Your task to perform on an android device: snooze an email in the gmail app Image 0: 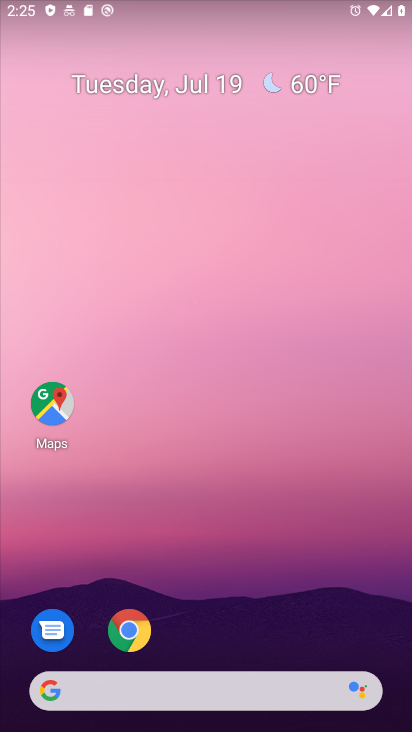
Step 0: click (211, 176)
Your task to perform on an android device: snooze an email in the gmail app Image 1: 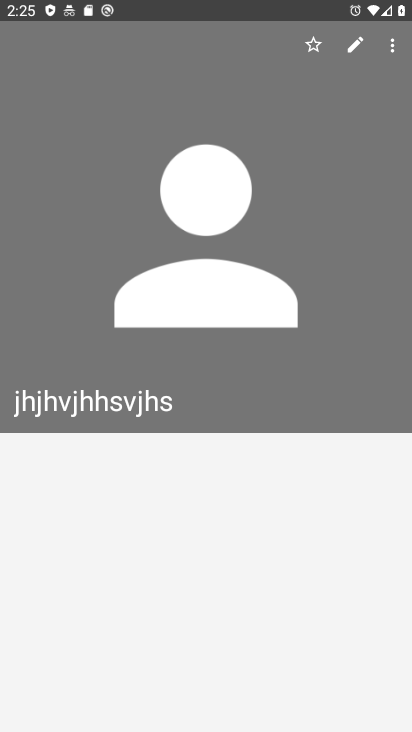
Step 1: drag from (232, 567) to (191, 211)
Your task to perform on an android device: snooze an email in the gmail app Image 2: 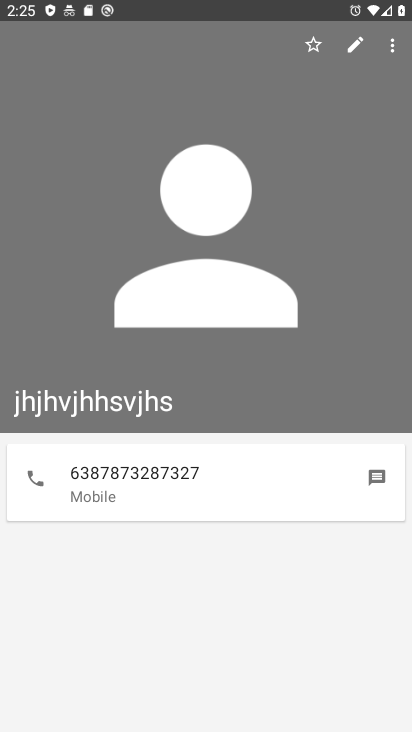
Step 2: press back button
Your task to perform on an android device: snooze an email in the gmail app Image 3: 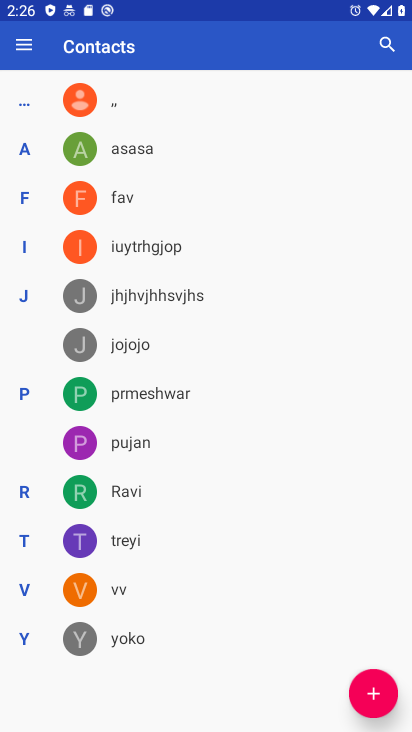
Step 3: press back button
Your task to perform on an android device: snooze an email in the gmail app Image 4: 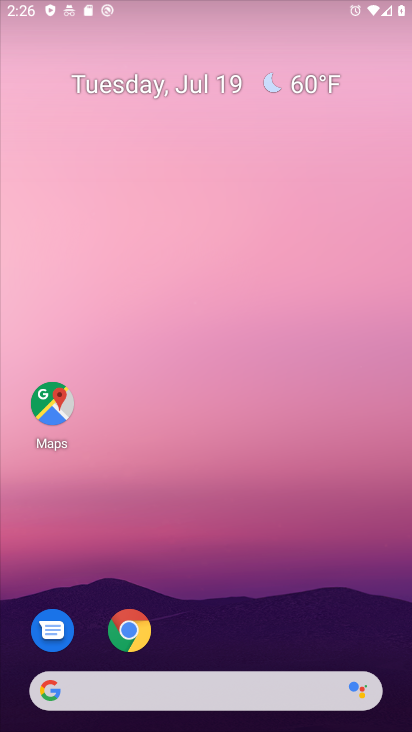
Step 4: drag from (296, 578) to (267, 260)
Your task to perform on an android device: snooze an email in the gmail app Image 5: 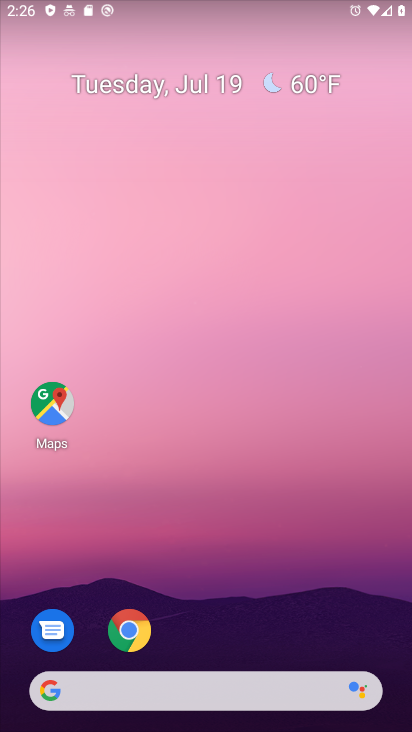
Step 5: drag from (269, 535) to (256, 223)
Your task to perform on an android device: snooze an email in the gmail app Image 6: 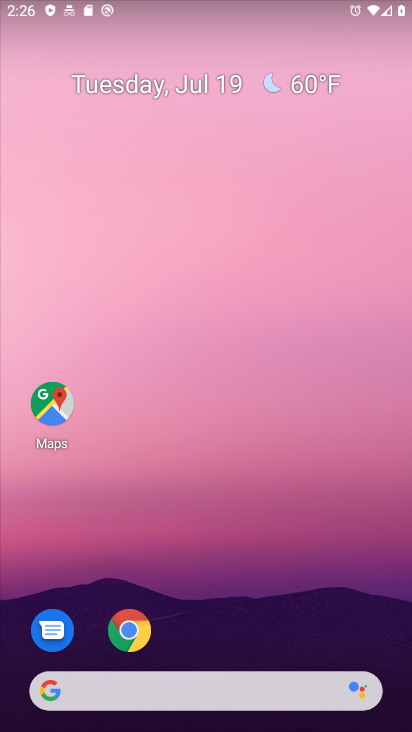
Step 6: drag from (195, 487) to (172, 242)
Your task to perform on an android device: snooze an email in the gmail app Image 7: 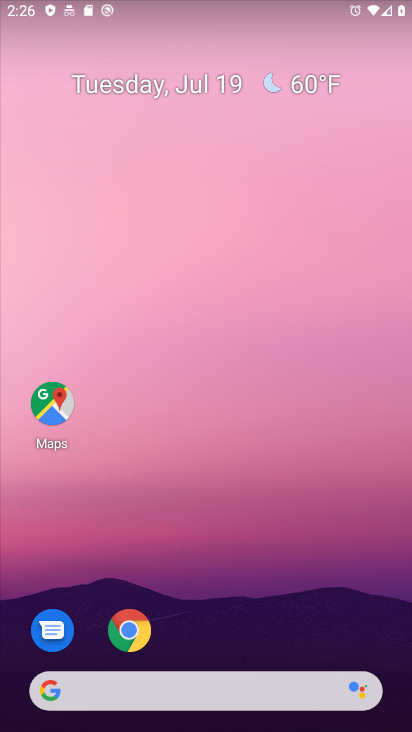
Step 7: drag from (157, 515) to (174, 152)
Your task to perform on an android device: snooze an email in the gmail app Image 8: 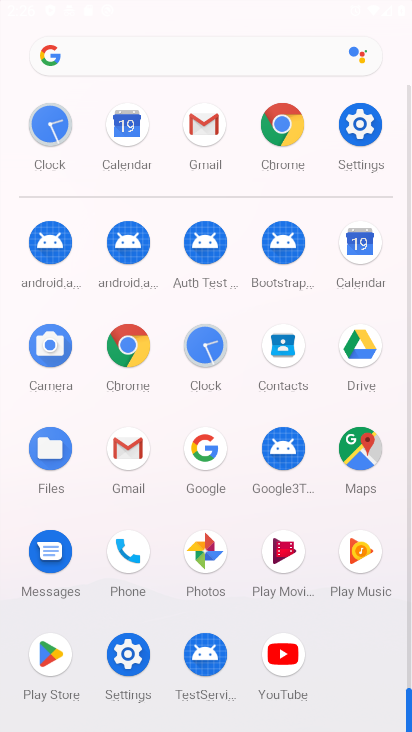
Step 8: drag from (203, 459) to (200, 177)
Your task to perform on an android device: snooze an email in the gmail app Image 9: 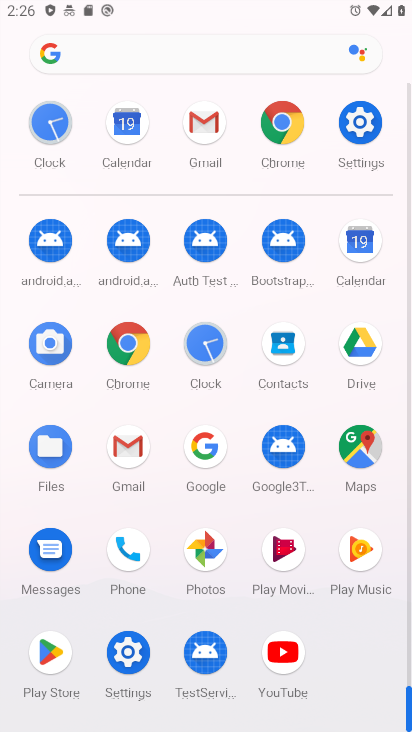
Step 9: click (117, 429)
Your task to perform on an android device: snooze an email in the gmail app Image 10: 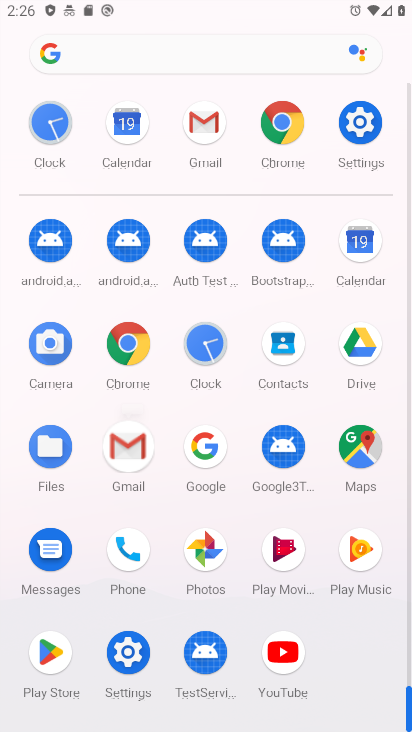
Step 10: click (133, 442)
Your task to perform on an android device: snooze an email in the gmail app Image 11: 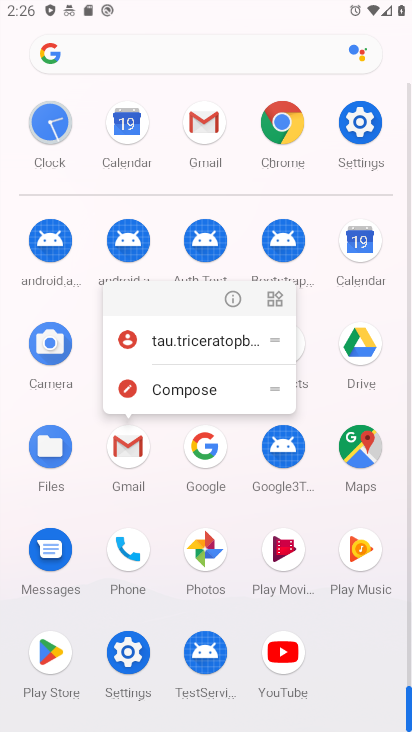
Step 11: click (133, 442)
Your task to perform on an android device: snooze an email in the gmail app Image 12: 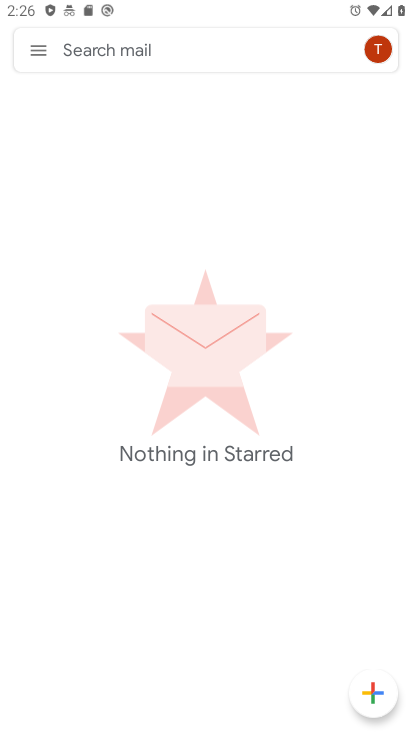
Step 12: click (26, 54)
Your task to perform on an android device: snooze an email in the gmail app Image 13: 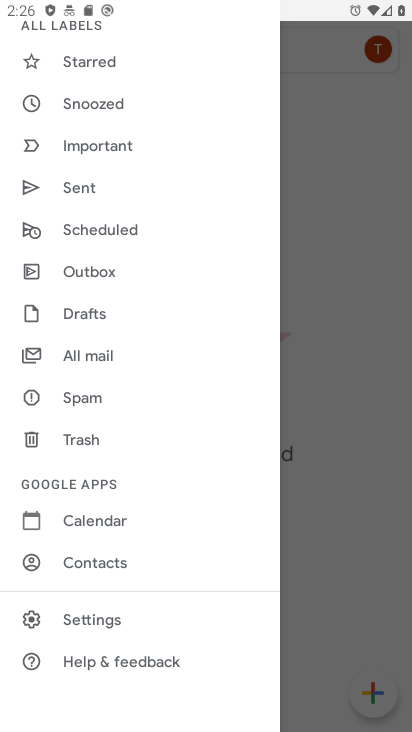
Step 13: click (83, 108)
Your task to perform on an android device: snooze an email in the gmail app Image 14: 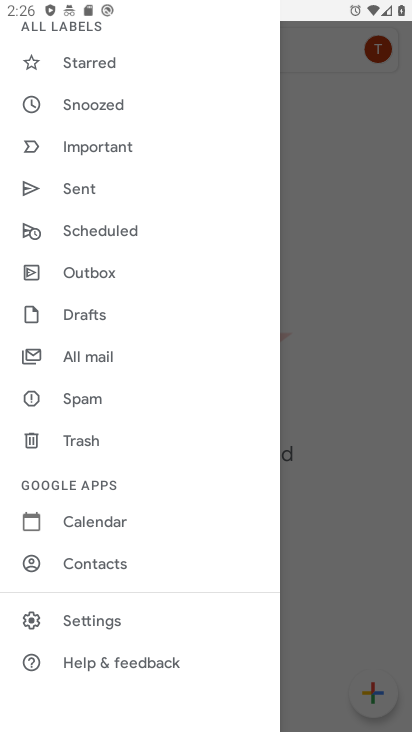
Step 14: click (84, 355)
Your task to perform on an android device: snooze an email in the gmail app Image 15: 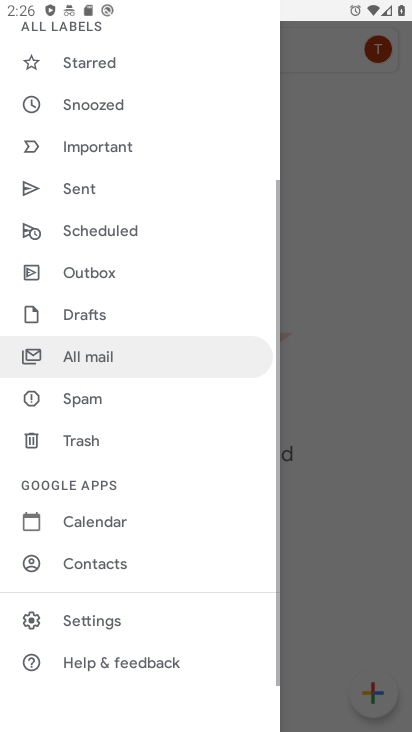
Step 15: click (84, 355)
Your task to perform on an android device: snooze an email in the gmail app Image 16: 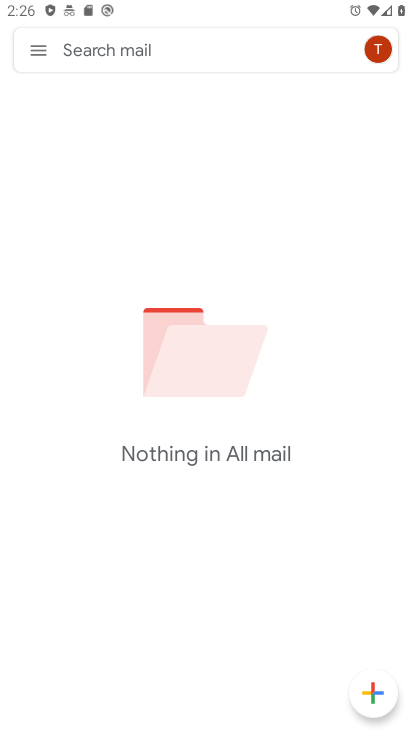
Step 16: task complete